Your task to perform on an android device: Do I have any events this weekend? Image 0: 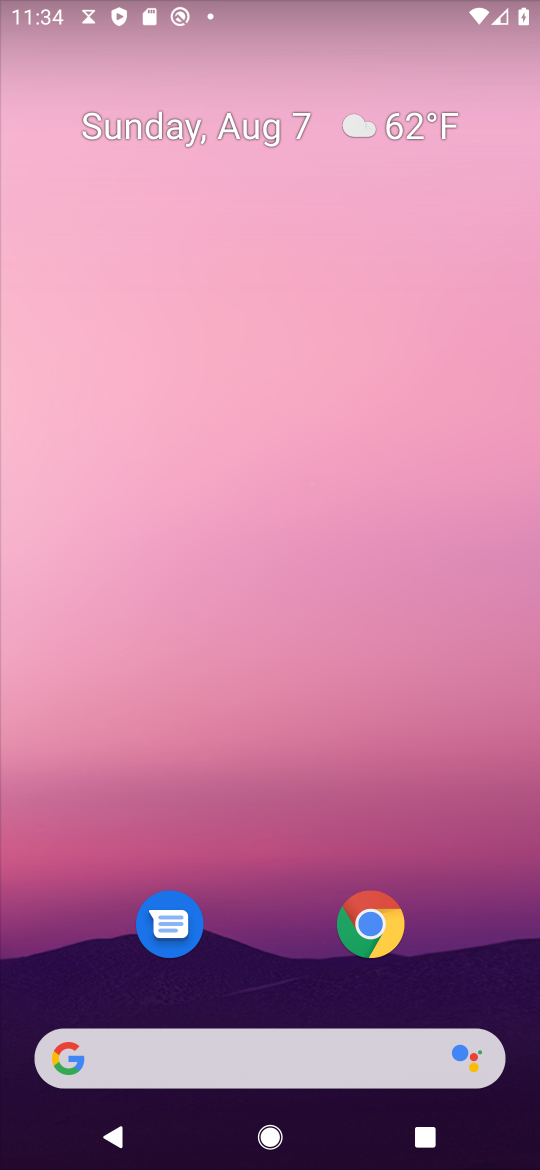
Step 0: drag from (266, 1013) to (248, 466)
Your task to perform on an android device: Do I have any events this weekend? Image 1: 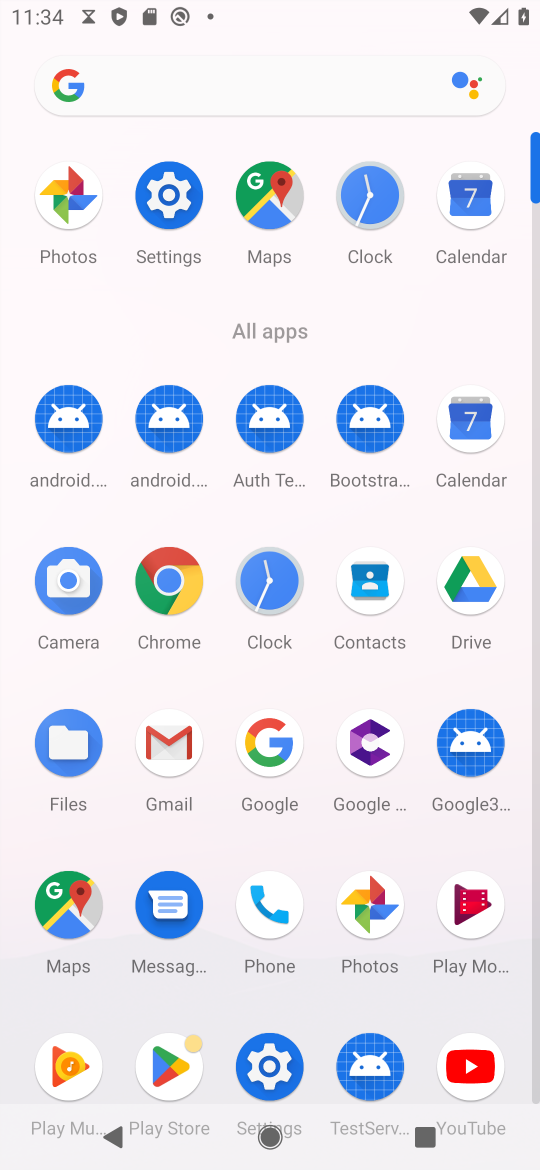
Step 1: click (470, 438)
Your task to perform on an android device: Do I have any events this weekend? Image 2: 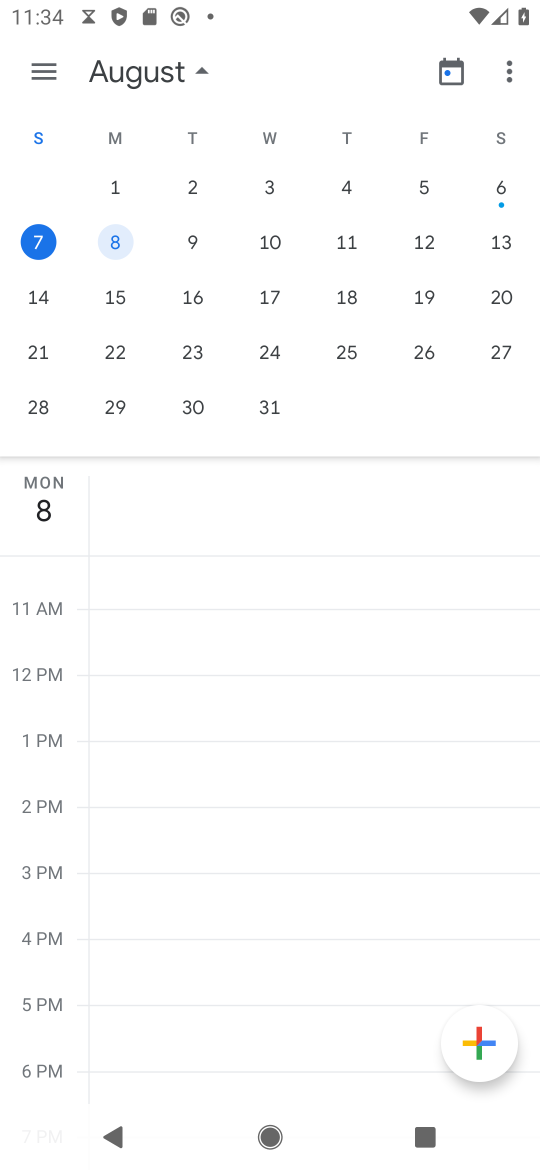
Step 2: click (501, 240)
Your task to perform on an android device: Do I have any events this weekend? Image 3: 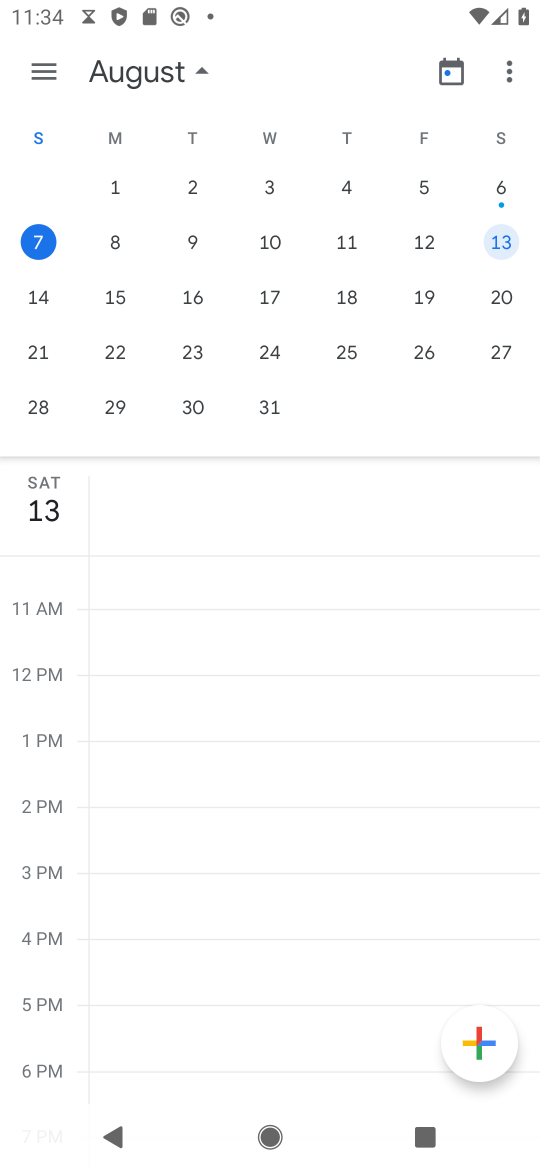
Step 3: click (35, 292)
Your task to perform on an android device: Do I have any events this weekend? Image 4: 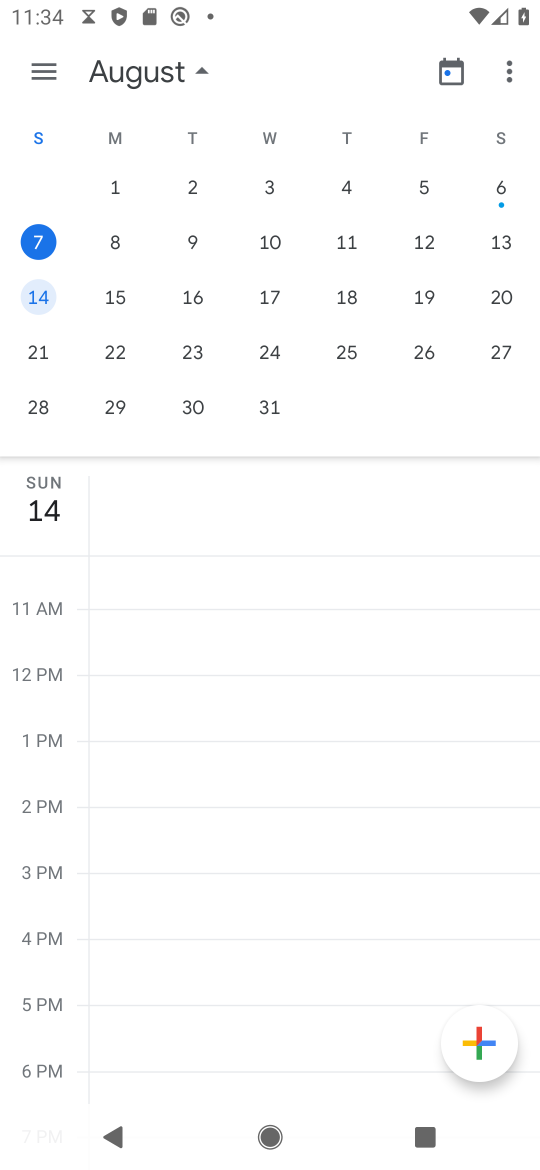
Step 4: task complete